Your task to perform on an android device: turn on airplane mode Image 0: 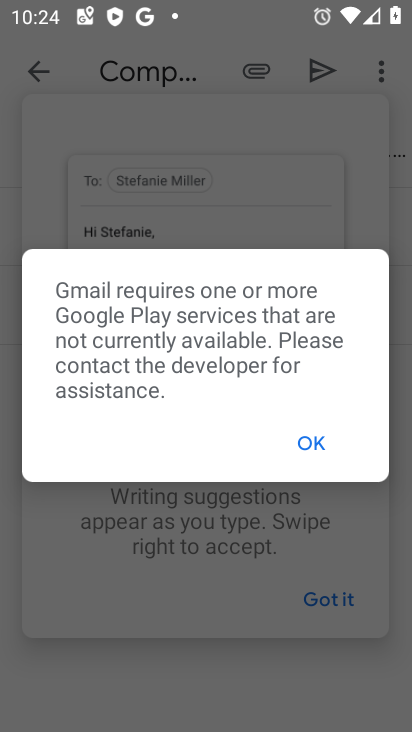
Step 0: press home button
Your task to perform on an android device: turn on airplane mode Image 1: 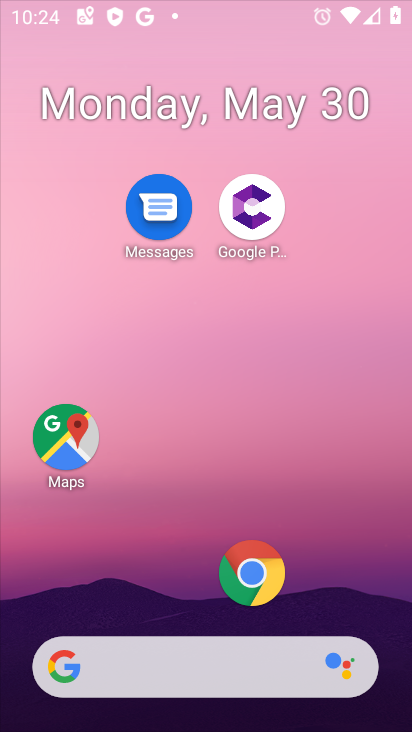
Step 1: drag from (159, 635) to (222, 51)
Your task to perform on an android device: turn on airplane mode Image 2: 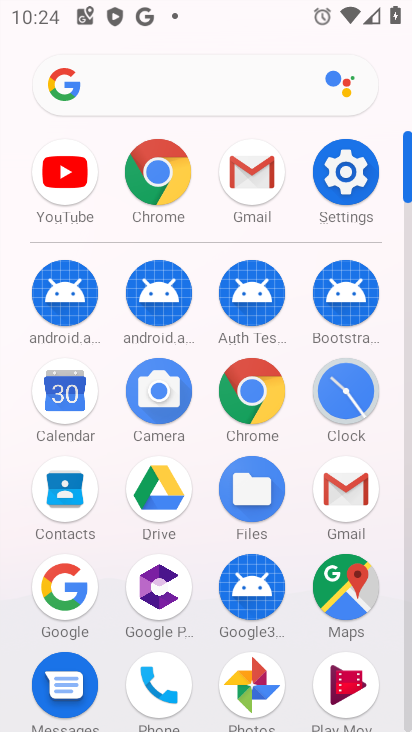
Step 2: click (359, 181)
Your task to perform on an android device: turn on airplane mode Image 3: 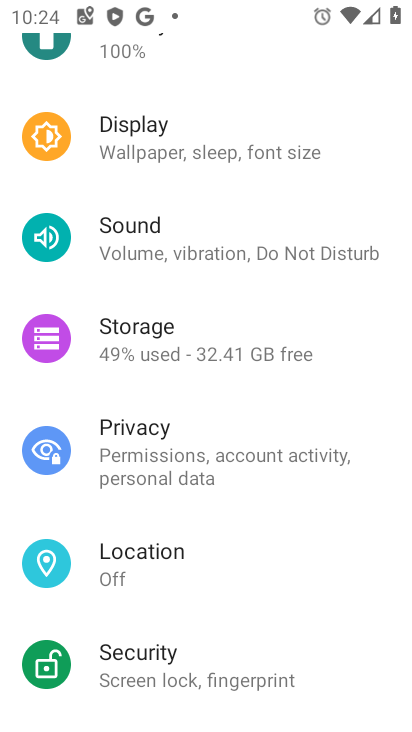
Step 3: drag from (188, 213) to (126, 637)
Your task to perform on an android device: turn on airplane mode Image 4: 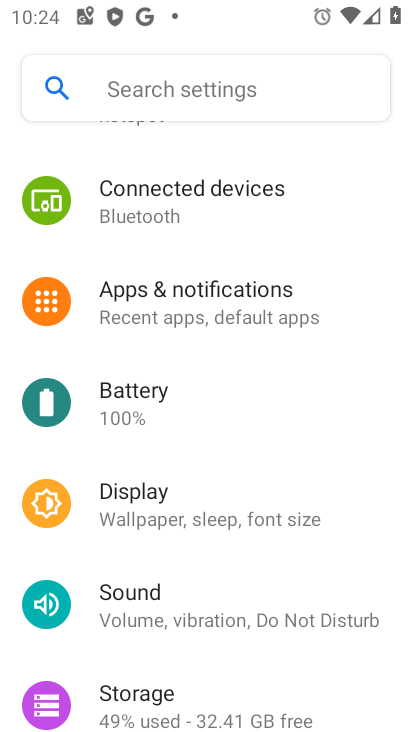
Step 4: drag from (212, 223) to (146, 668)
Your task to perform on an android device: turn on airplane mode Image 5: 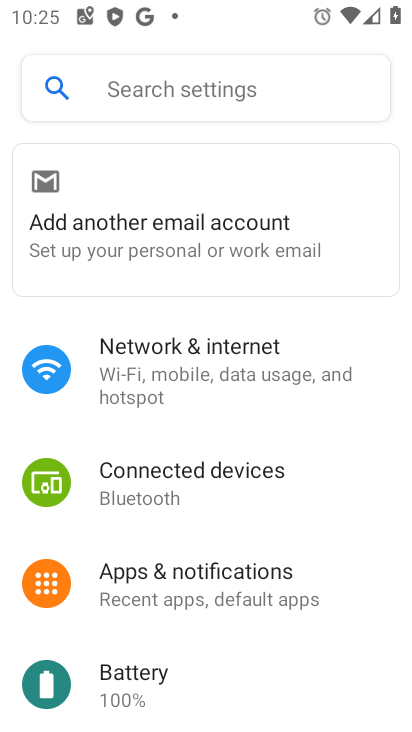
Step 5: click (242, 359)
Your task to perform on an android device: turn on airplane mode Image 6: 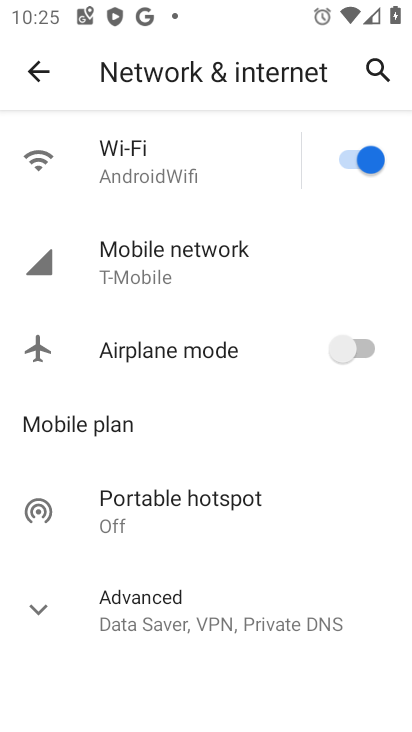
Step 6: click (283, 327)
Your task to perform on an android device: turn on airplane mode Image 7: 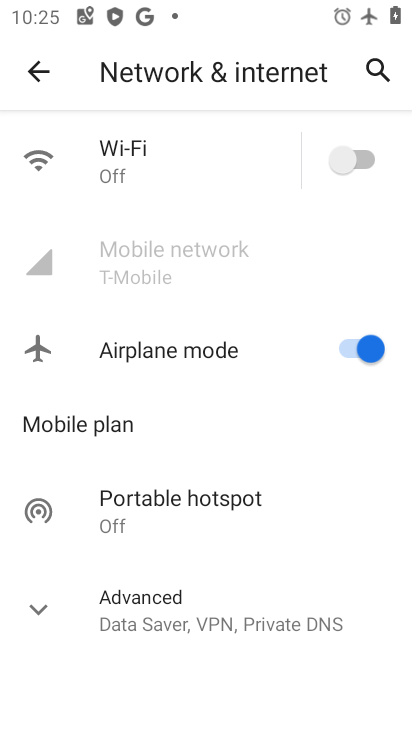
Step 7: task complete